Your task to perform on an android device: change the clock display to show seconds Image 0: 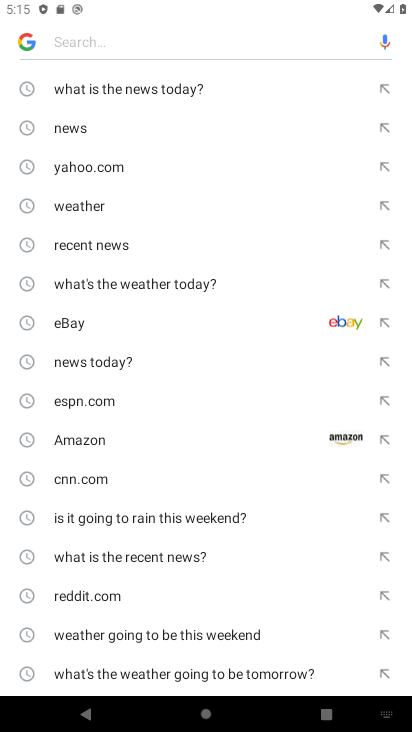
Step 0: press home button
Your task to perform on an android device: change the clock display to show seconds Image 1: 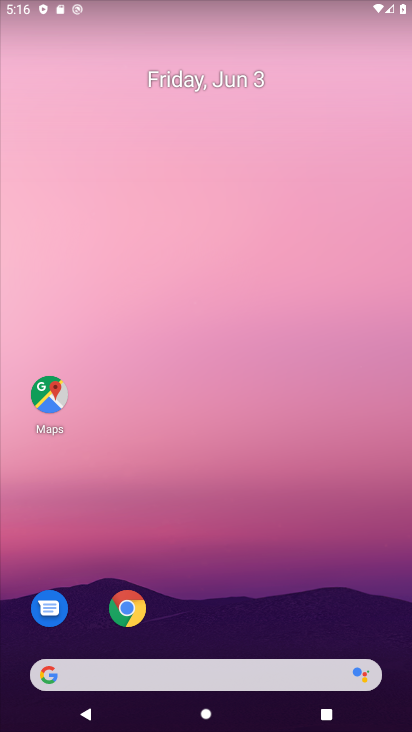
Step 1: drag from (212, 569) to (193, 292)
Your task to perform on an android device: change the clock display to show seconds Image 2: 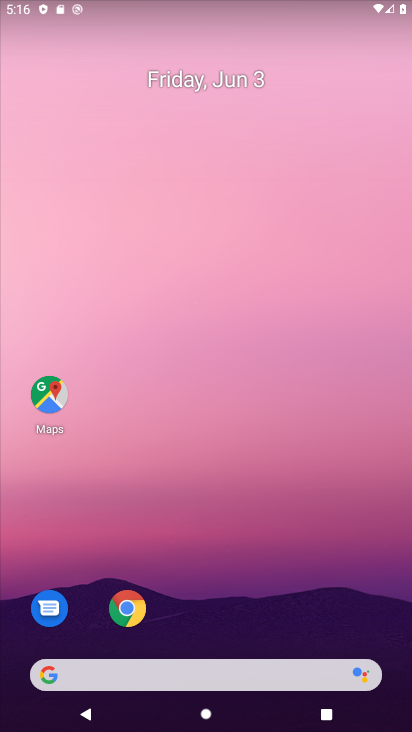
Step 2: drag from (302, 607) to (260, 374)
Your task to perform on an android device: change the clock display to show seconds Image 3: 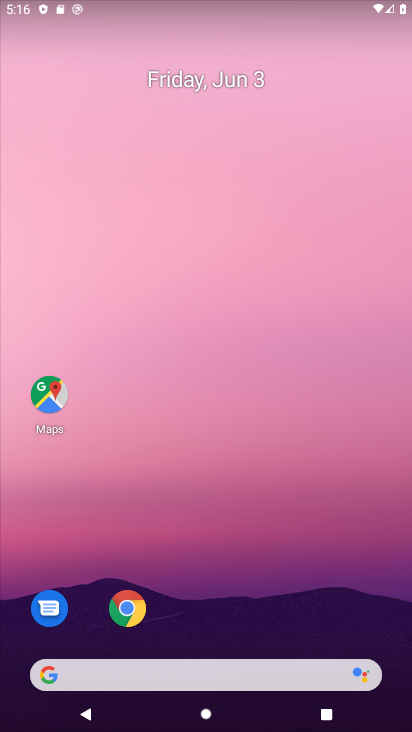
Step 3: drag from (308, 542) to (250, 10)
Your task to perform on an android device: change the clock display to show seconds Image 4: 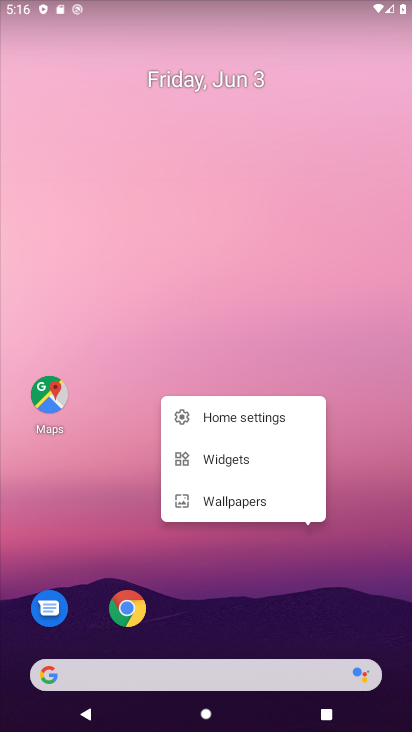
Step 4: click (226, 155)
Your task to perform on an android device: change the clock display to show seconds Image 5: 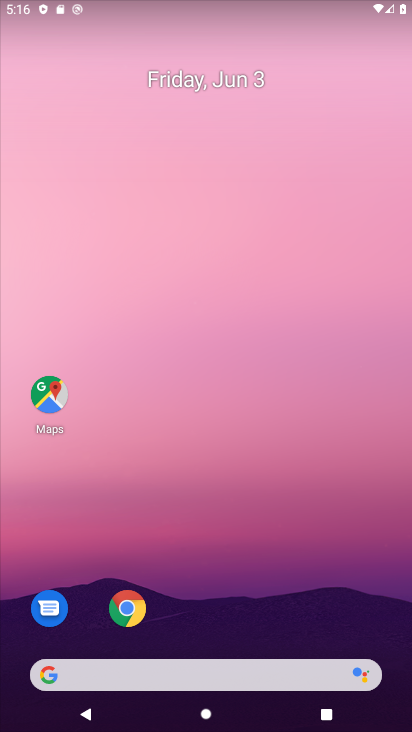
Step 5: click (226, 155)
Your task to perform on an android device: change the clock display to show seconds Image 6: 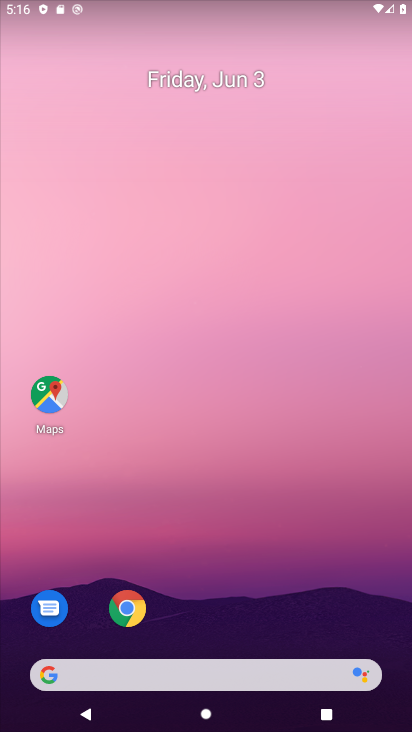
Step 6: drag from (260, 466) to (161, 16)
Your task to perform on an android device: change the clock display to show seconds Image 7: 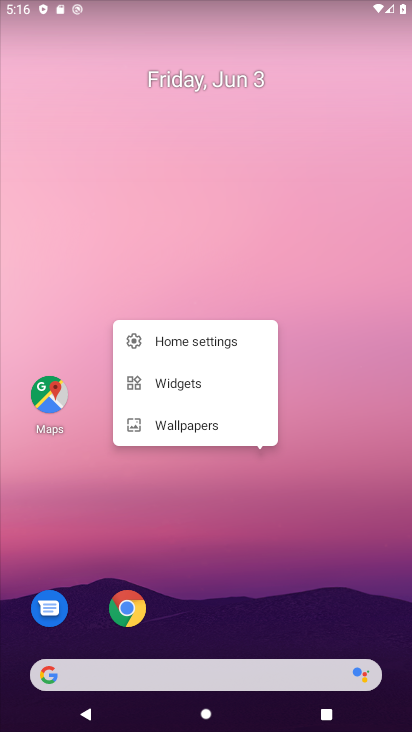
Step 7: click (392, 230)
Your task to perform on an android device: change the clock display to show seconds Image 8: 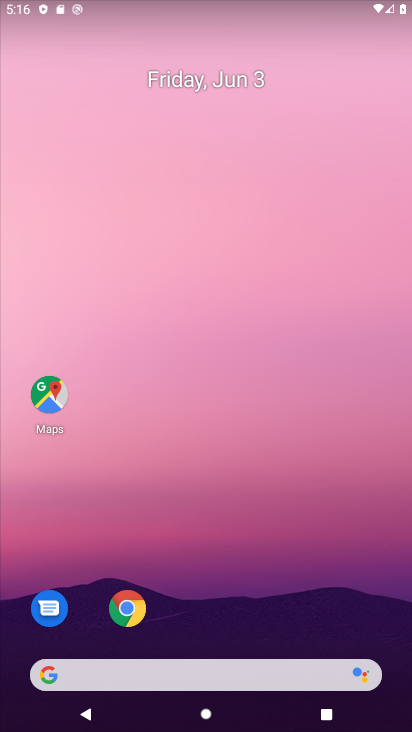
Step 8: drag from (221, 564) to (190, 389)
Your task to perform on an android device: change the clock display to show seconds Image 9: 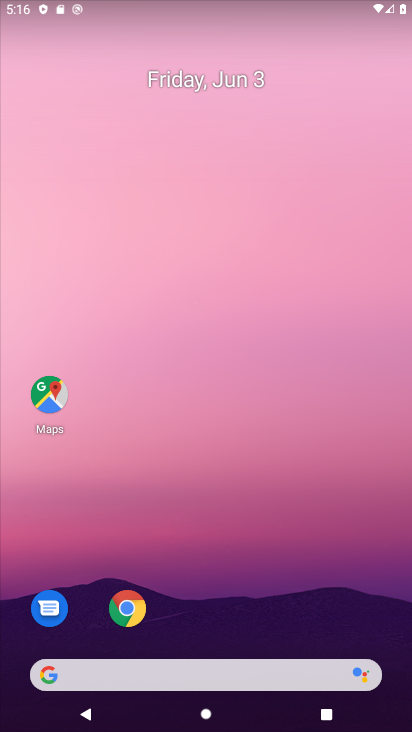
Step 9: drag from (271, 514) to (178, 215)
Your task to perform on an android device: change the clock display to show seconds Image 10: 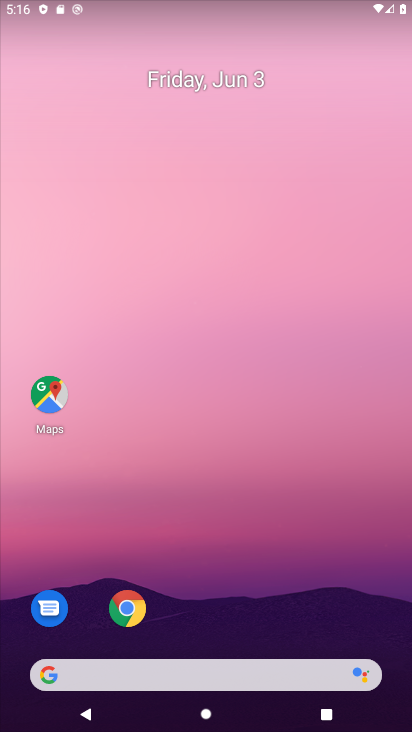
Step 10: drag from (344, 602) to (233, 227)
Your task to perform on an android device: change the clock display to show seconds Image 11: 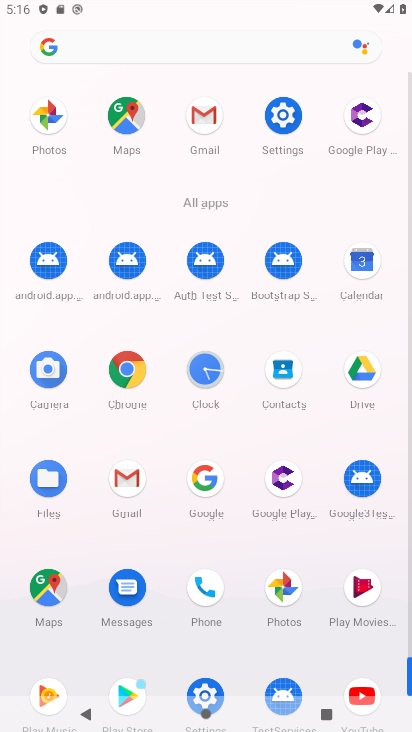
Step 11: click (279, 95)
Your task to perform on an android device: change the clock display to show seconds Image 12: 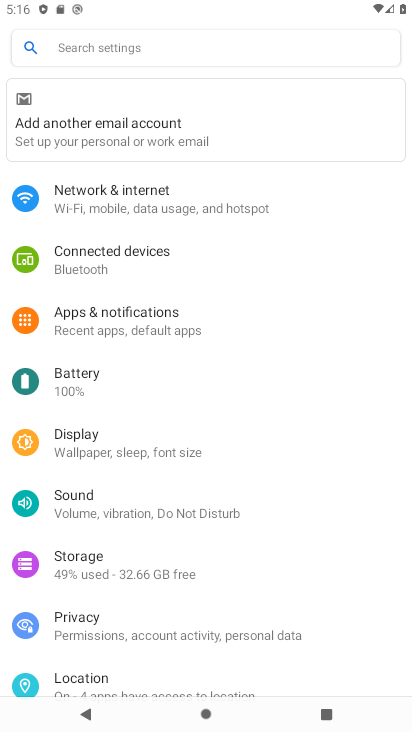
Step 12: press home button
Your task to perform on an android device: change the clock display to show seconds Image 13: 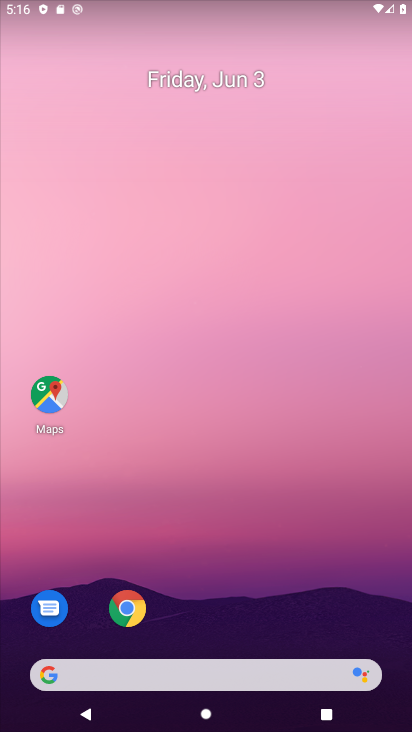
Step 13: drag from (237, 603) to (138, 153)
Your task to perform on an android device: change the clock display to show seconds Image 14: 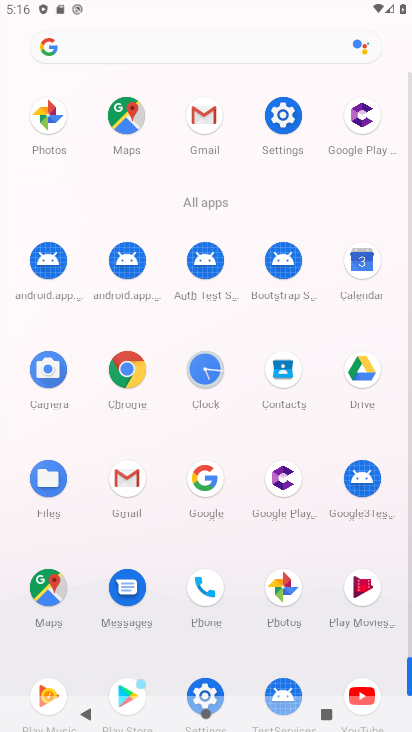
Step 14: click (216, 365)
Your task to perform on an android device: change the clock display to show seconds Image 15: 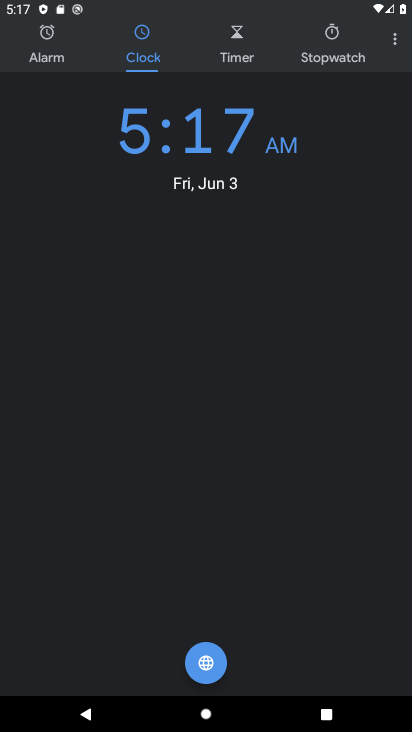
Step 15: click (394, 29)
Your task to perform on an android device: change the clock display to show seconds Image 16: 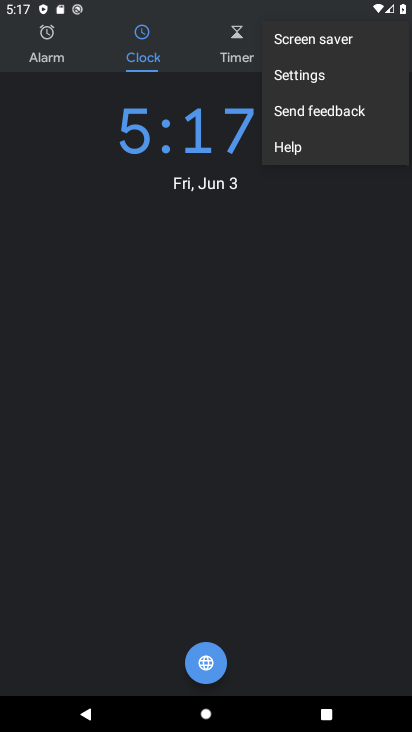
Step 16: click (341, 67)
Your task to perform on an android device: change the clock display to show seconds Image 17: 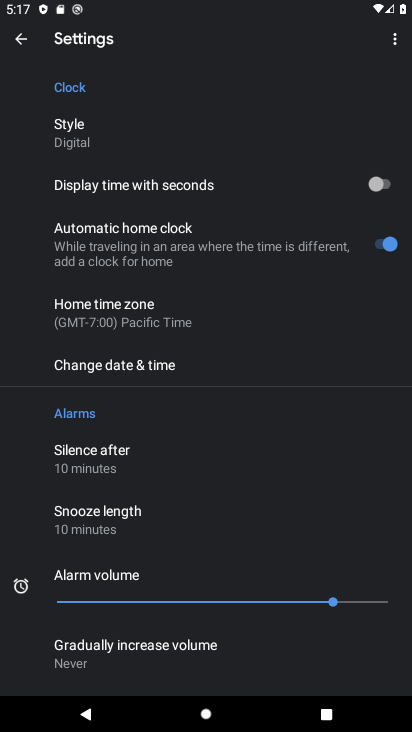
Step 17: drag from (214, 580) to (172, 145)
Your task to perform on an android device: change the clock display to show seconds Image 18: 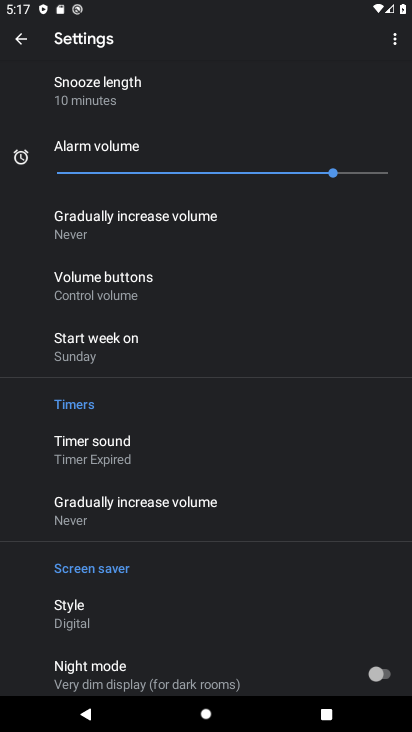
Step 18: drag from (232, 547) to (207, 149)
Your task to perform on an android device: change the clock display to show seconds Image 19: 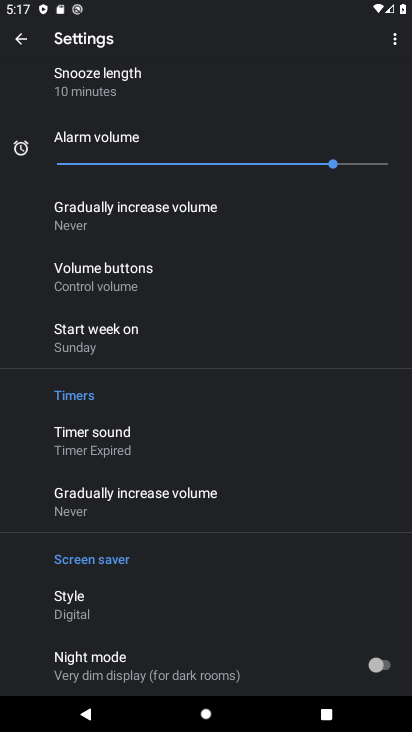
Step 19: drag from (250, 253) to (320, 561)
Your task to perform on an android device: change the clock display to show seconds Image 20: 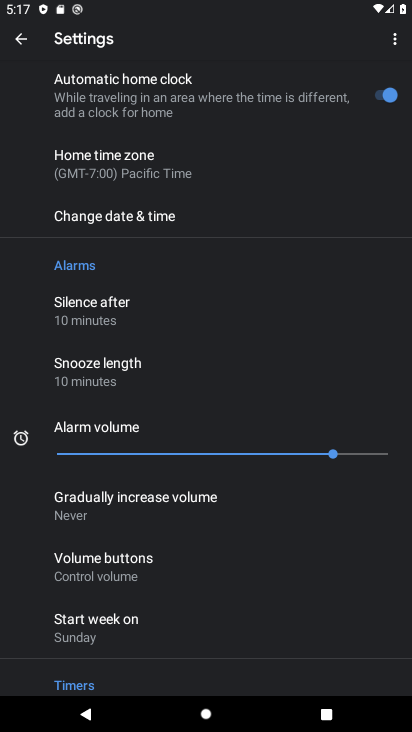
Step 20: drag from (253, 198) to (284, 707)
Your task to perform on an android device: change the clock display to show seconds Image 21: 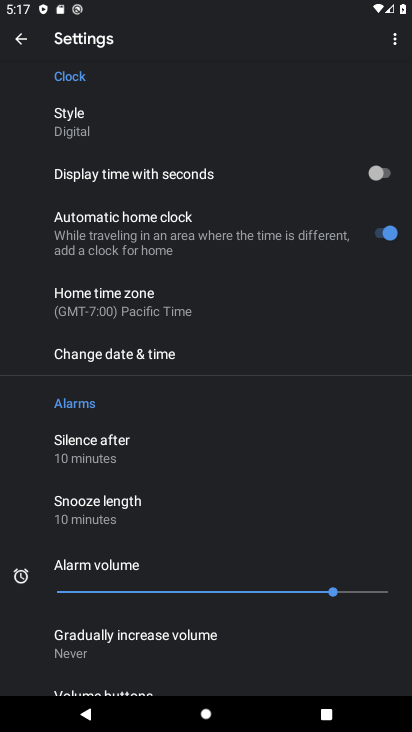
Step 21: click (221, 343)
Your task to perform on an android device: change the clock display to show seconds Image 22: 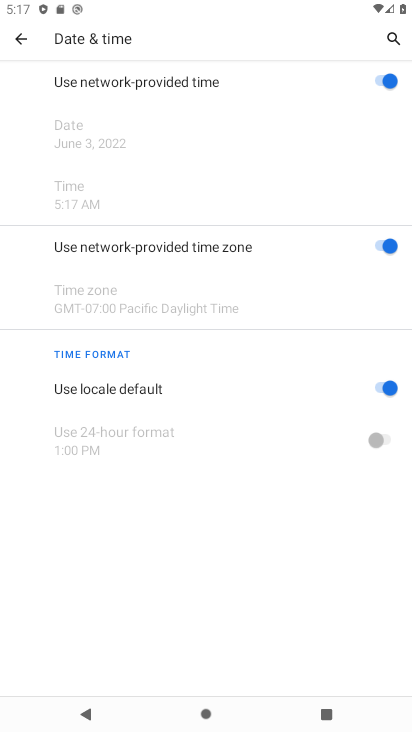
Step 22: task complete